Your task to perform on an android device: delete browsing data in the chrome app Image 0: 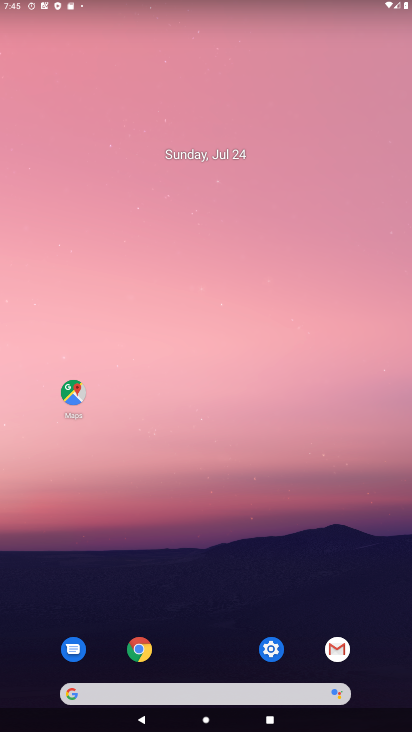
Step 0: click (156, 653)
Your task to perform on an android device: delete browsing data in the chrome app Image 1: 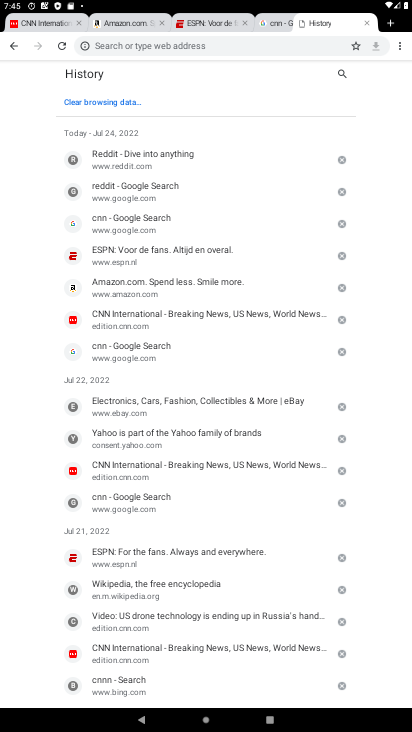
Step 1: click (121, 98)
Your task to perform on an android device: delete browsing data in the chrome app Image 2: 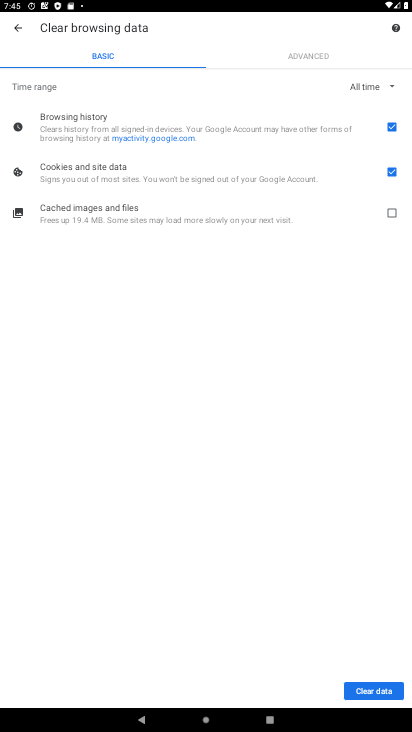
Step 2: click (377, 681)
Your task to perform on an android device: delete browsing data in the chrome app Image 3: 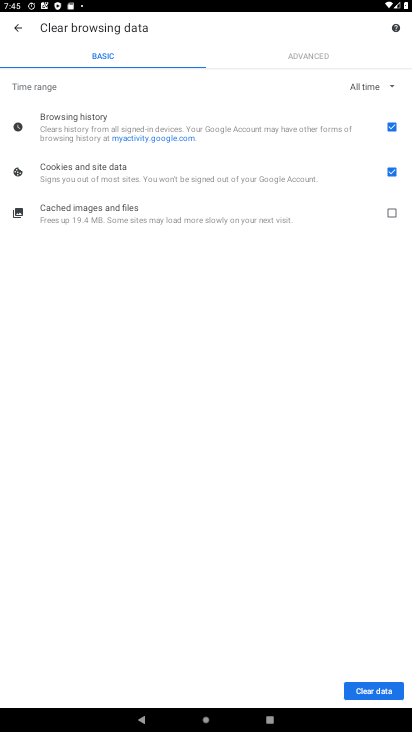
Step 3: task complete